Your task to perform on an android device: Open calendar and show me the fourth week of next month Image 0: 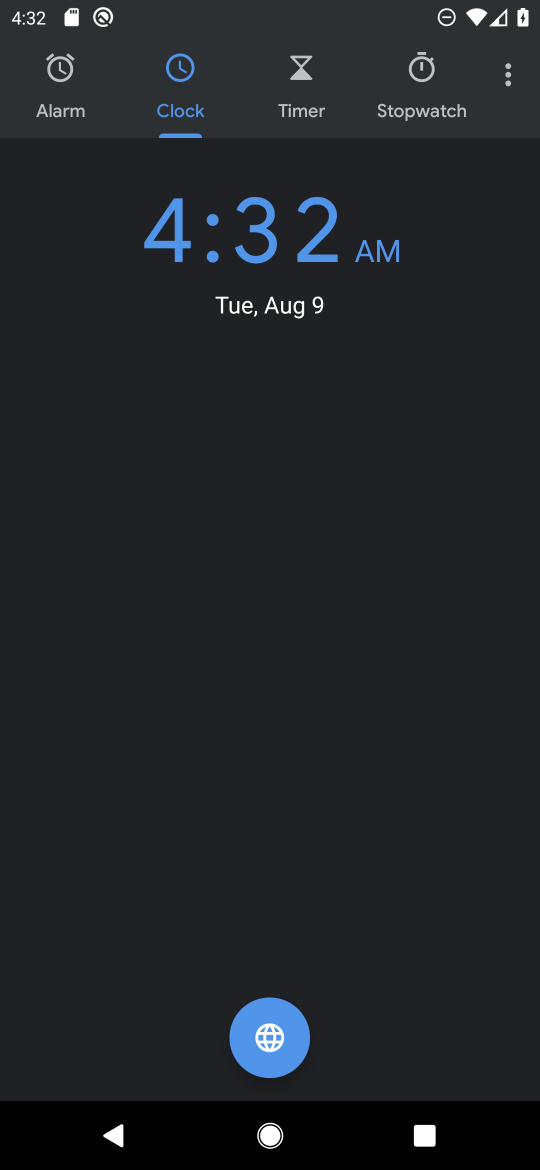
Step 0: press back button
Your task to perform on an android device: Open calendar and show me the fourth week of next month Image 1: 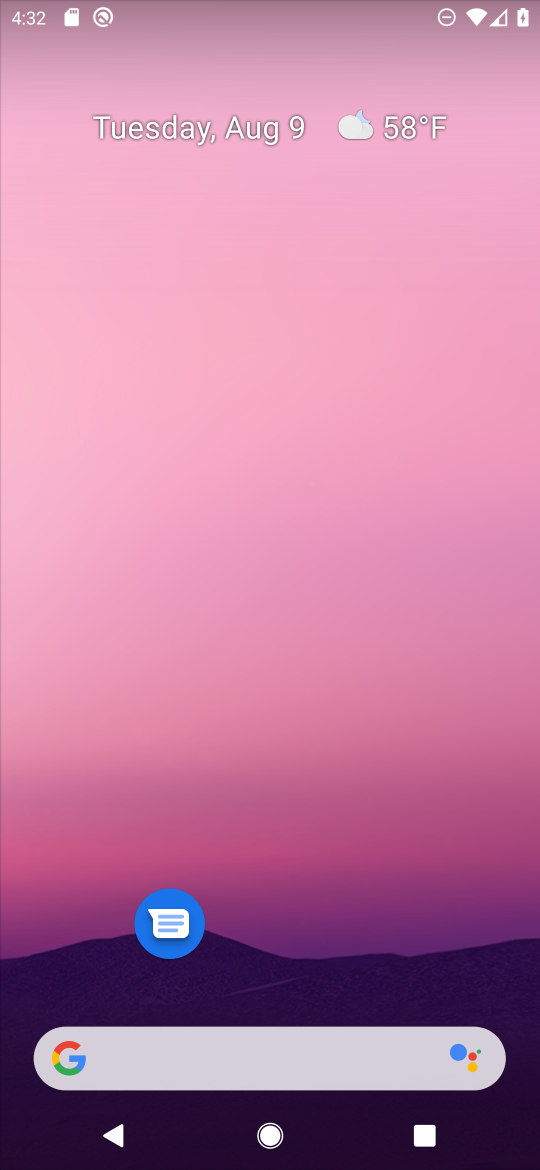
Step 1: drag from (292, 871) to (414, 9)
Your task to perform on an android device: Open calendar and show me the fourth week of next month Image 2: 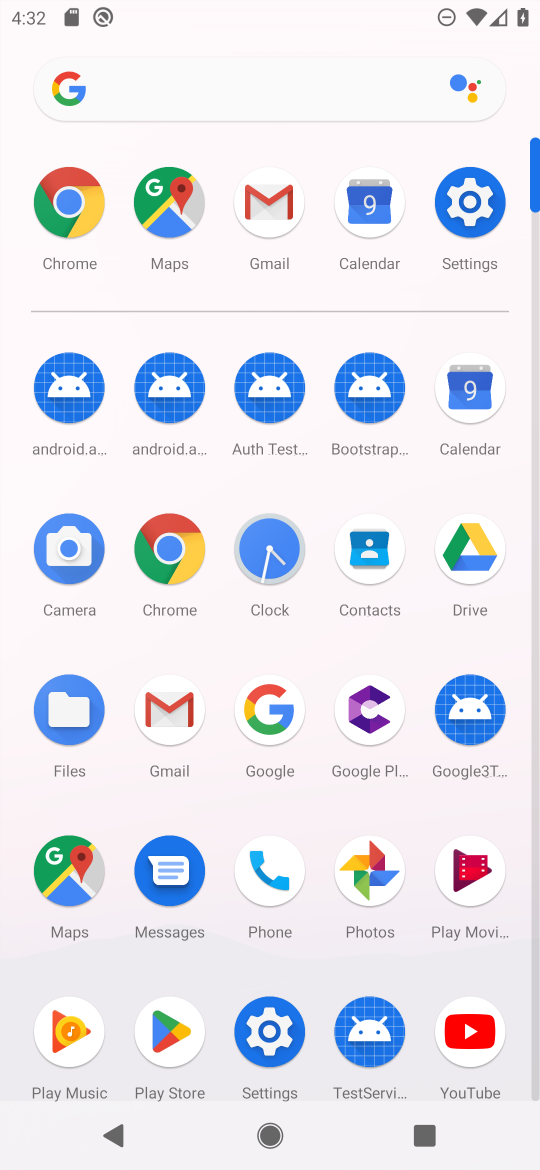
Step 2: click (471, 395)
Your task to perform on an android device: Open calendar and show me the fourth week of next month Image 3: 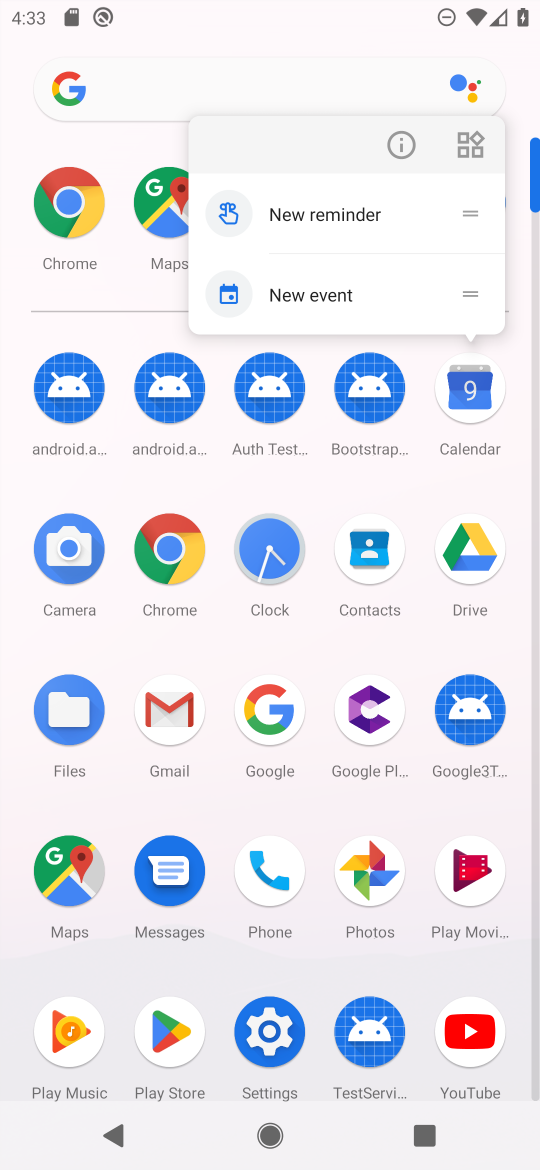
Step 3: click (462, 407)
Your task to perform on an android device: Open calendar and show me the fourth week of next month Image 4: 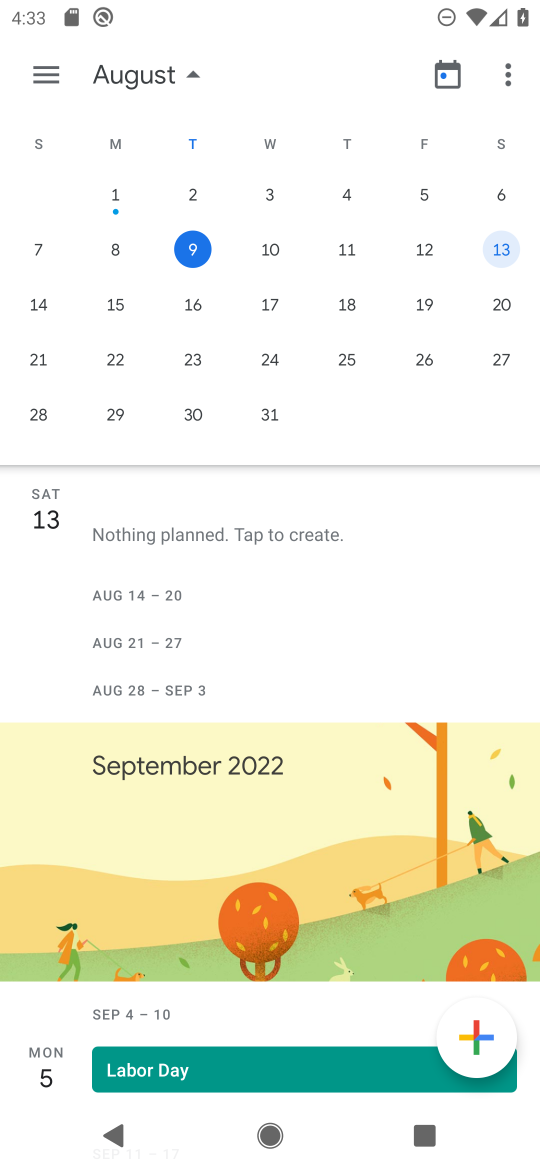
Step 4: click (108, 355)
Your task to perform on an android device: Open calendar and show me the fourth week of next month Image 5: 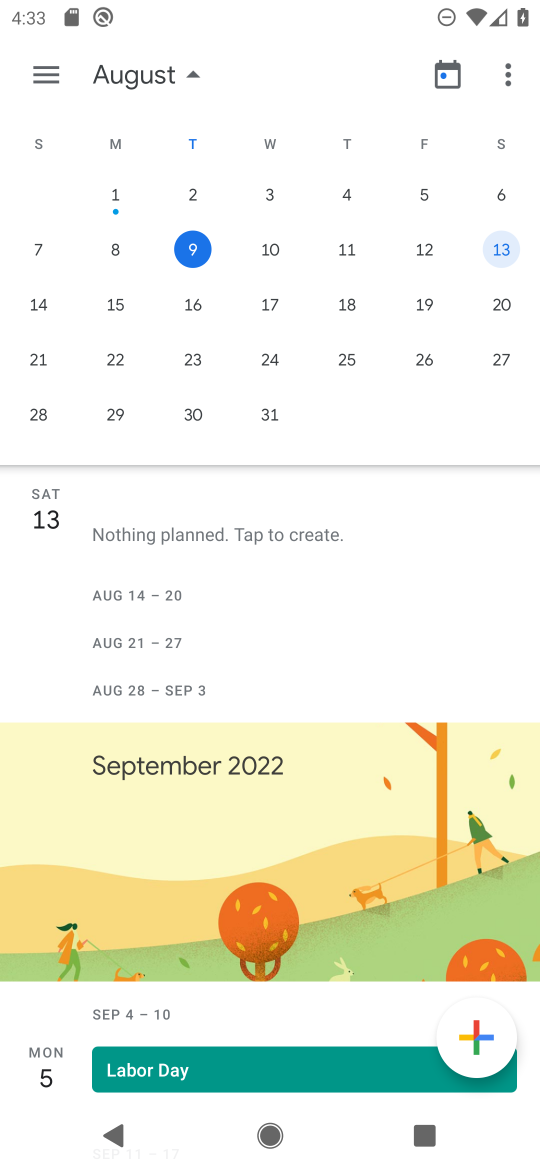
Step 5: click (116, 353)
Your task to perform on an android device: Open calendar and show me the fourth week of next month Image 6: 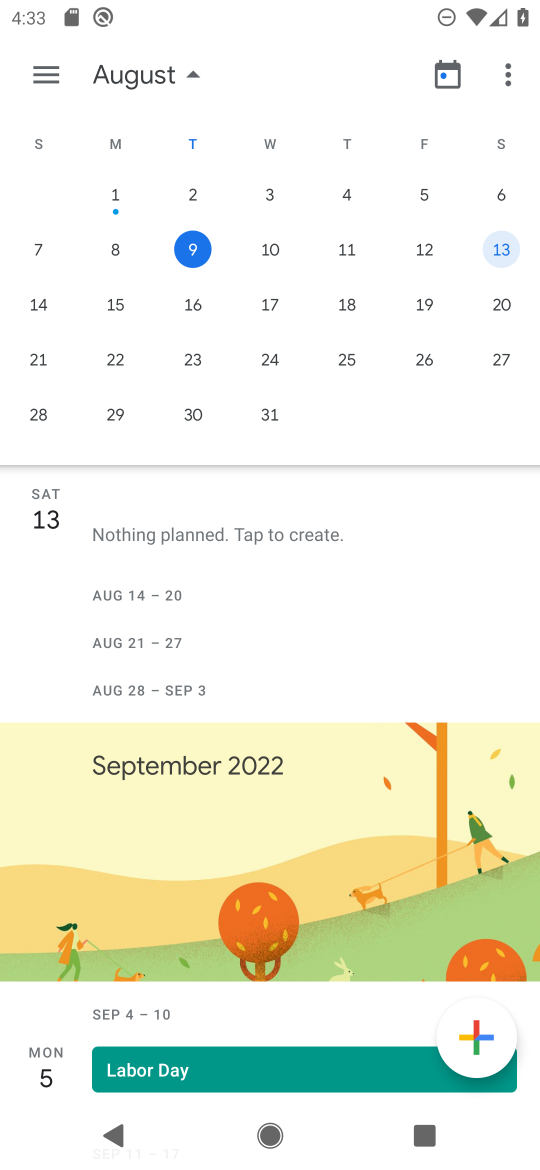
Step 6: click (107, 354)
Your task to perform on an android device: Open calendar and show me the fourth week of next month Image 7: 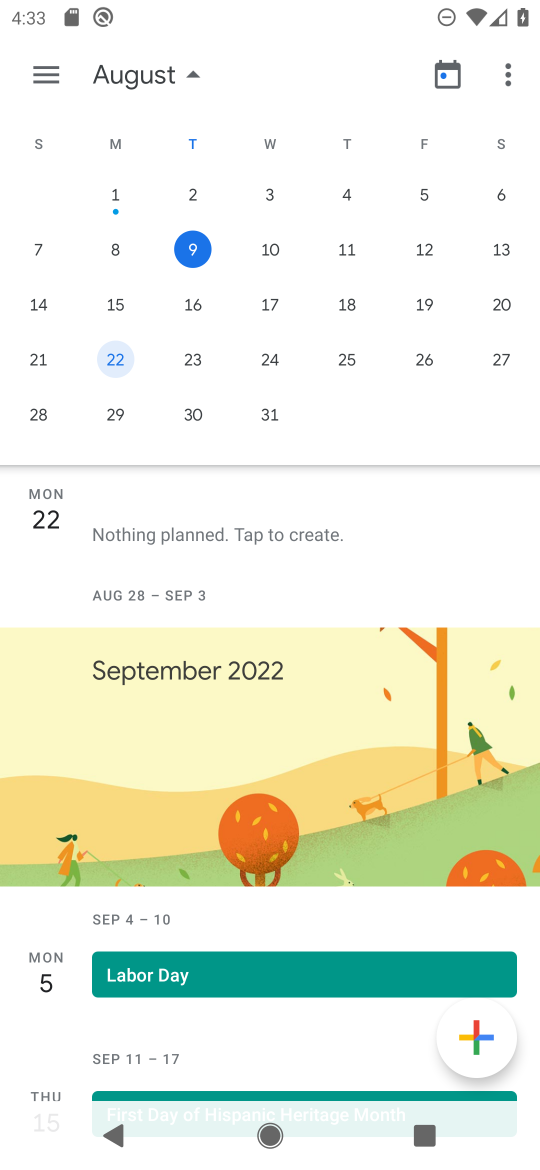
Step 7: task complete